Your task to perform on an android device: check google app version Image 0: 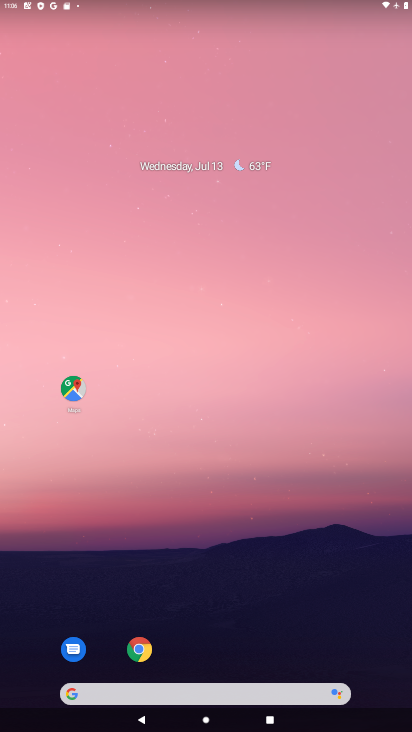
Step 0: drag from (293, 590) to (262, 256)
Your task to perform on an android device: check google app version Image 1: 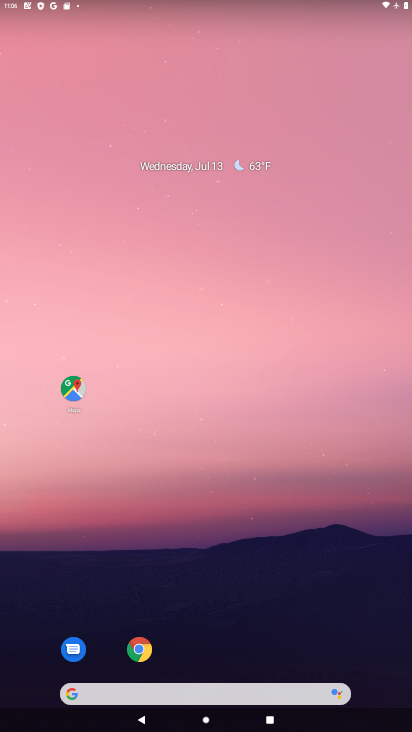
Step 1: drag from (160, 599) to (211, 104)
Your task to perform on an android device: check google app version Image 2: 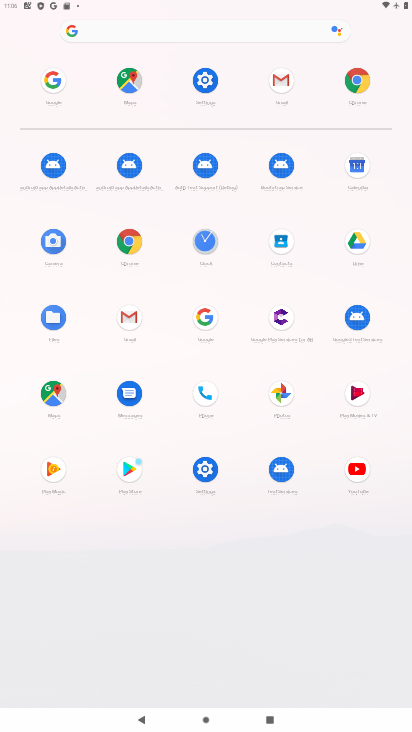
Step 2: click (208, 305)
Your task to perform on an android device: check google app version Image 3: 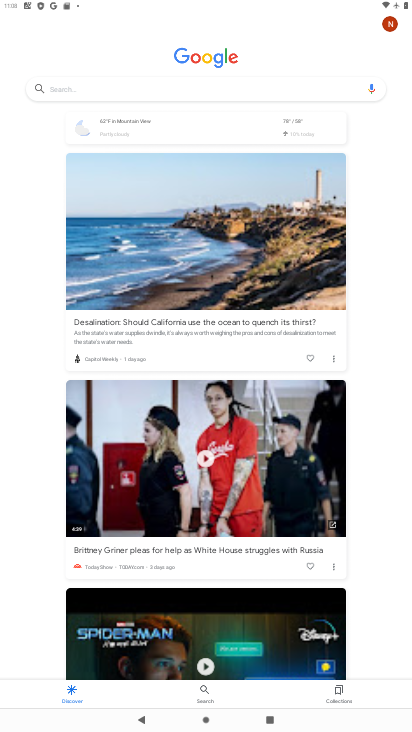
Step 3: click (399, 15)
Your task to perform on an android device: check google app version Image 4: 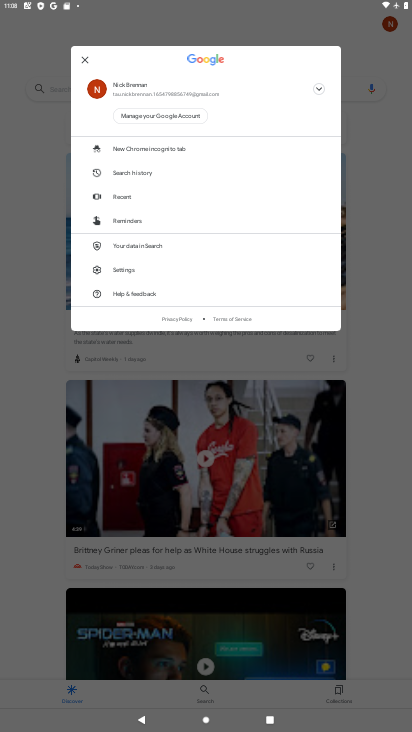
Step 4: click (127, 277)
Your task to perform on an android device: check google app version Image 5: 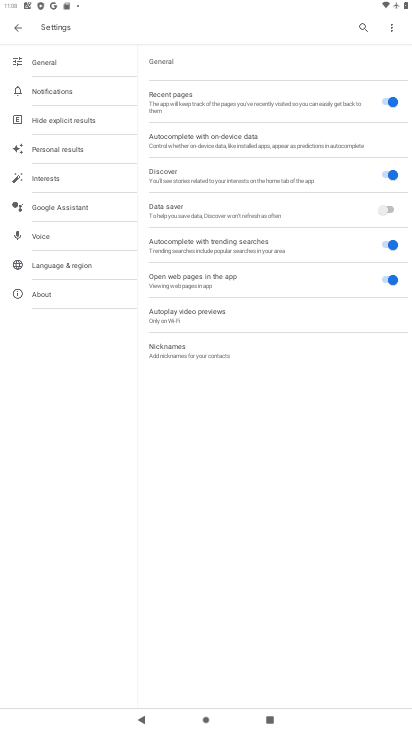
Step 5: click (59, 286)
Your task to perform on an android device: check google app version Image 6: 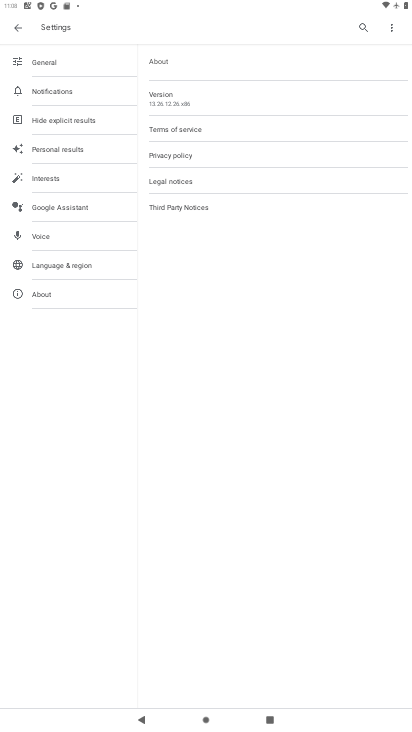
Step 6: click (217, 90)
Your task to perform on an android device: check google app version Image 7: 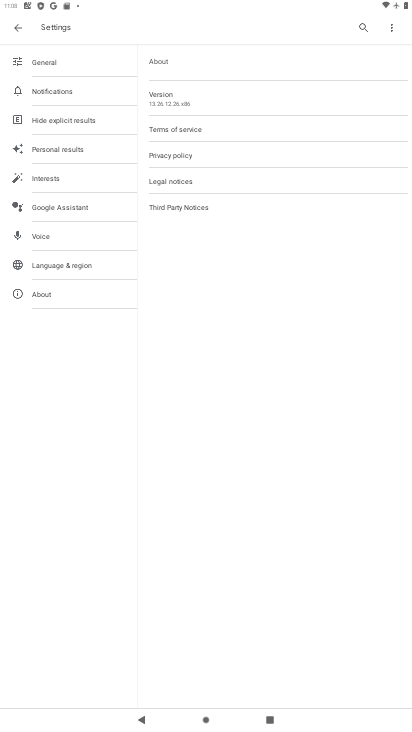
Step 7: task complete